Your task to perform on an android device: clear all cookies in the chrome app Image 0: 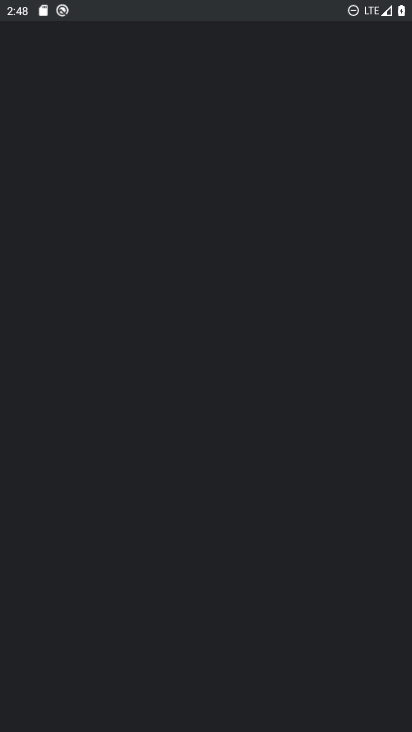
Step 0: drag from (216, 553) to (387, 7)
Your task to perform on an android device: clear all cookies in the chrome app Image 1: 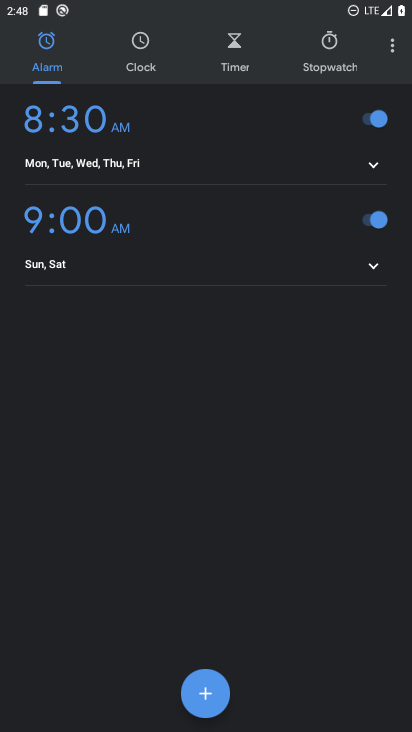
Step 1: click (260, 348)
Your task to perform on an android device: clear all cookies in the chrome app Image 2: 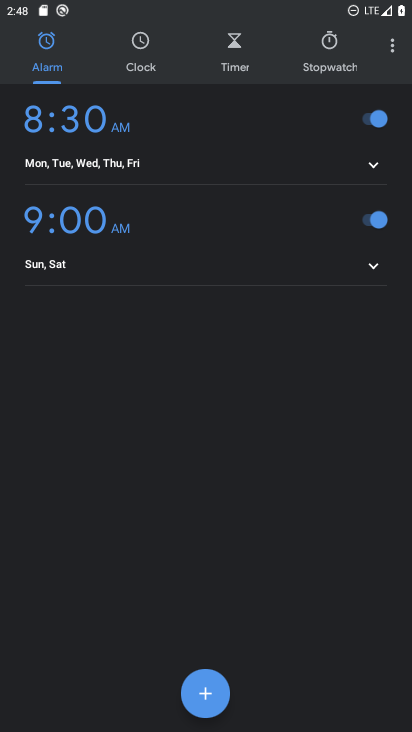
Step 2: press home button
Your task to perform on an android device: clear all cookies in the chrome app Image 3: 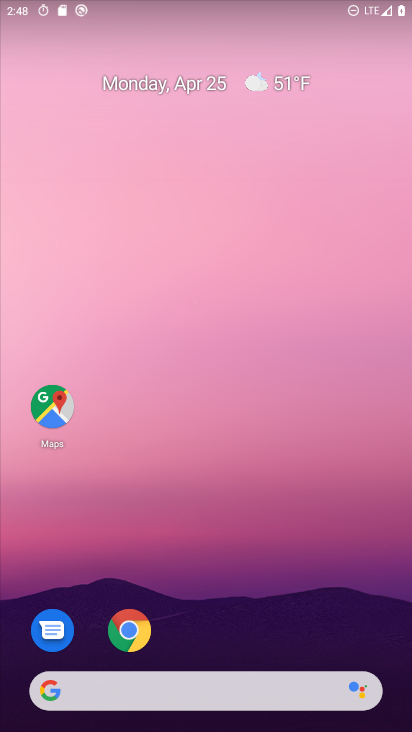
Step 3: drag from (218, 648) to (232, 258)
Your task to perform on an android device: clear all cookies in the chrome app Image 4: 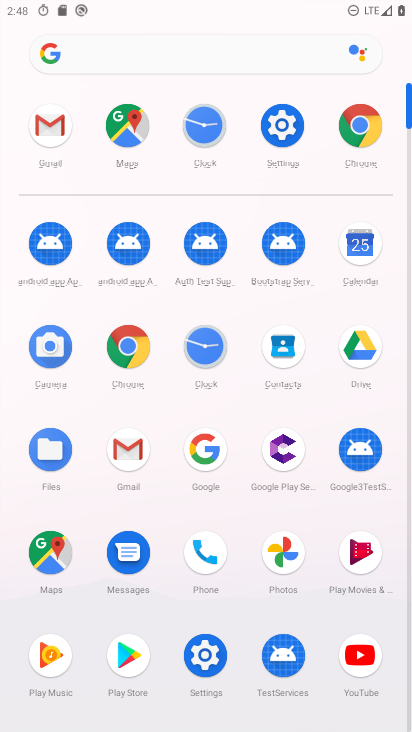
Step 4: click (124, 344)
Your task to perform on an android device: clear all cookies in the chrome app Image 5: 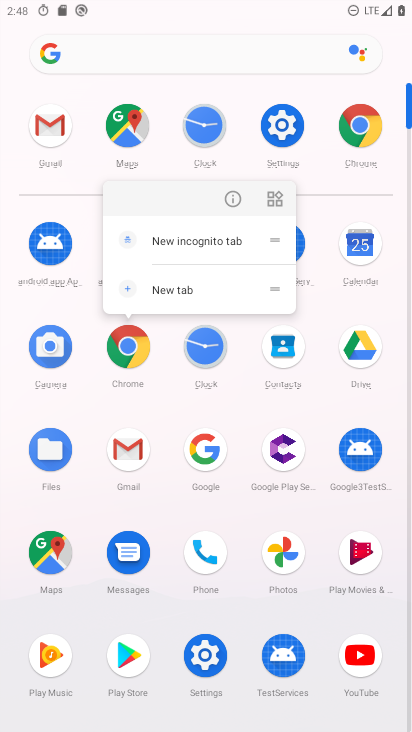
Step 5: click (228, 195)
Your task to perform on an android device: clear all cookies in the chrome app Image 6: 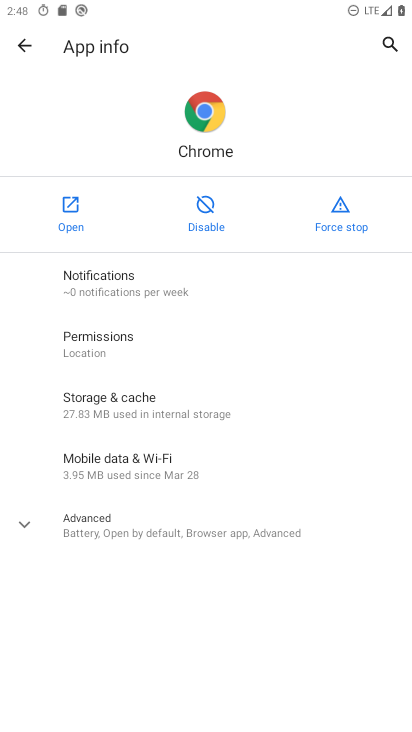
Step 6: click (62, 204)
Your task to perform on an android device: clear all cookies in the chrome app Image 7: 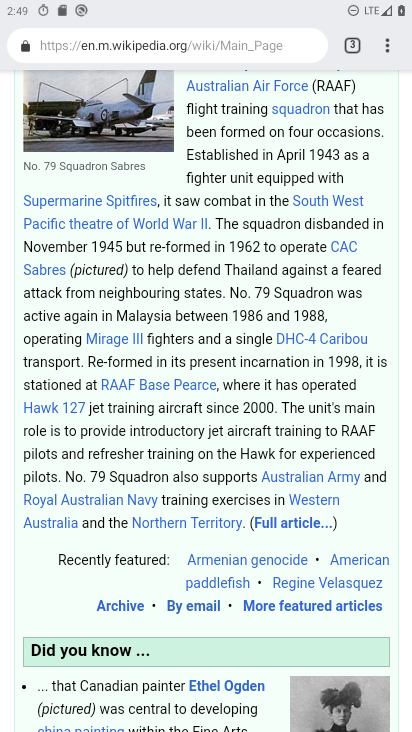
Step 7: drag from (208, 666) to (258, 218)
Your task to perform on an android device: clear all cookies in the chrome app Image 8: 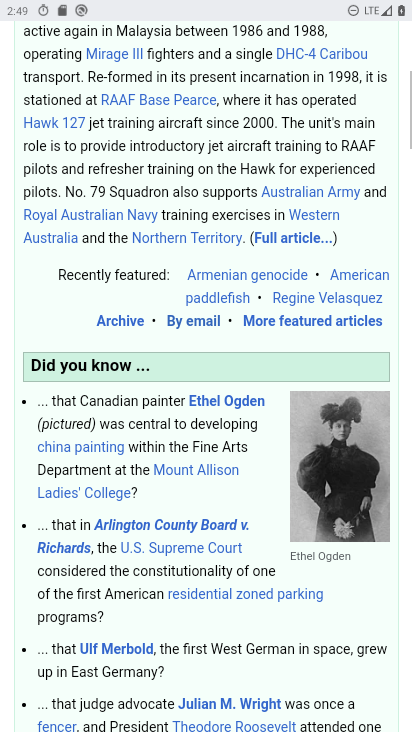
Step 8: drag from (261, 202) to (277, 707)
Your task to perform on an android device: clear all cookies in the chrome app Image 9: 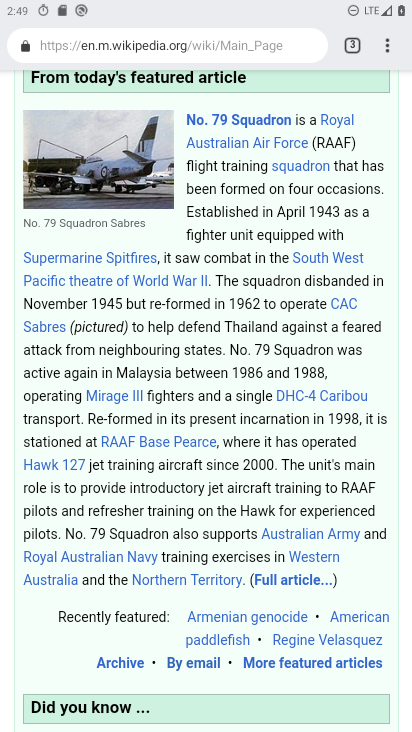
Step 9: drag from (196, 135) to (232, 689)
Your task to perform on an android device: clear all cookies in the chrome app Image 10: 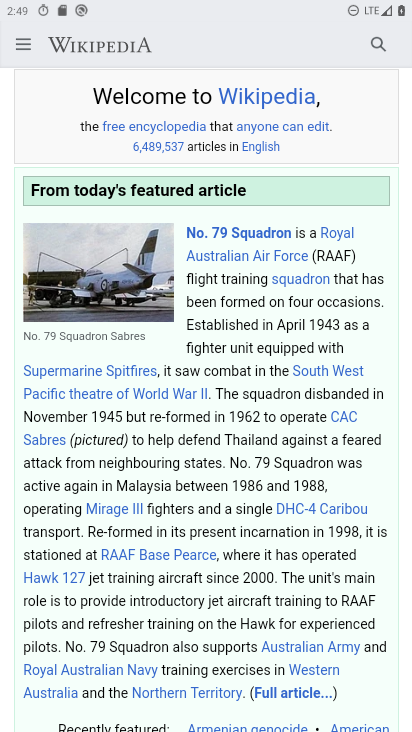
Step 10: drag from (389, 34) to (279, 10)
Your task to perform on an android device: clear all cookies in the chrome app Image 11: 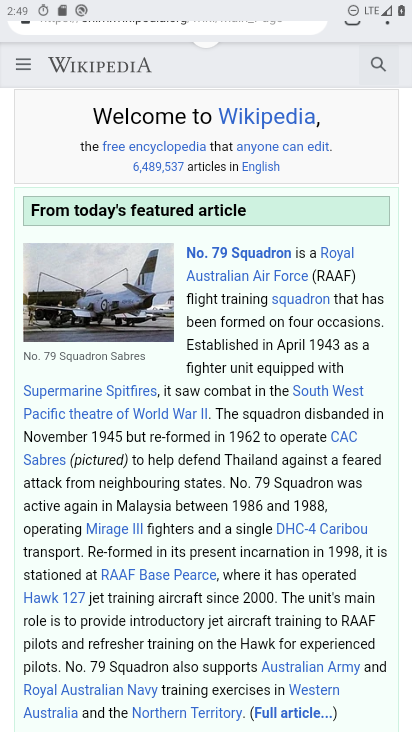
Step 11: drag from (228, 188) to (274, 535)
Your task to perform on an android device: clear all cookies in the chrome app Image 12: 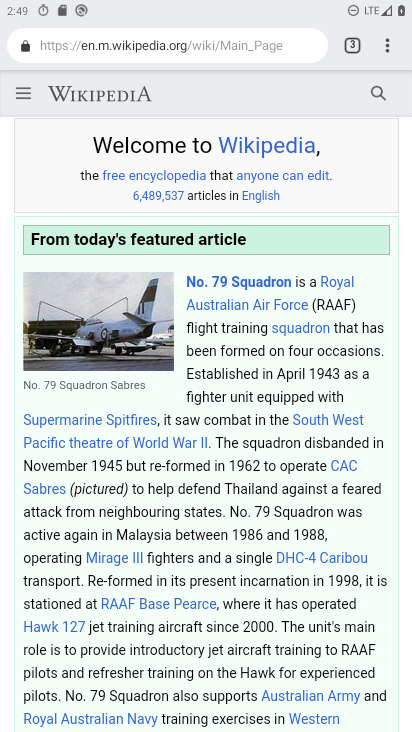
Step 12: drag from (390, 43) to (256, 311)
Your task to perform on an android device: clear all cookies in the chrome app Image 13: 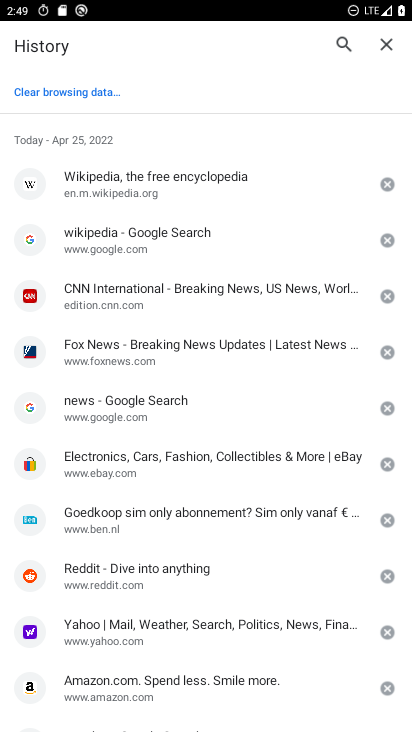
Step 13: click (44, 84)
Your task to perform on an android device: clear all cookies in the chrome app Image 14: 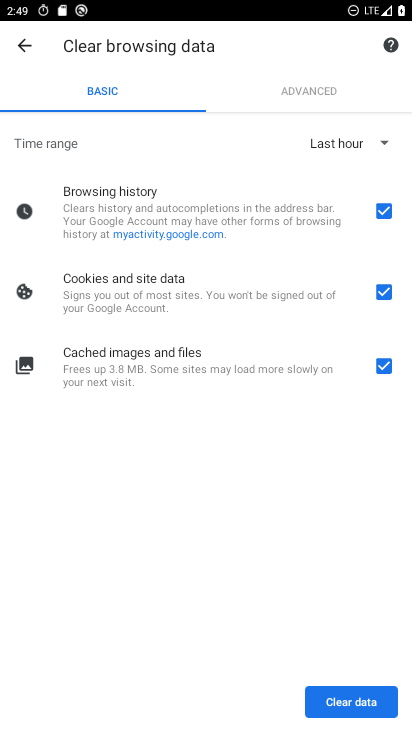
Step 14: drag from (242, 590) to (259, 389)
Your task to perform on an android device: clear all cookies in the chrome app Image 15: 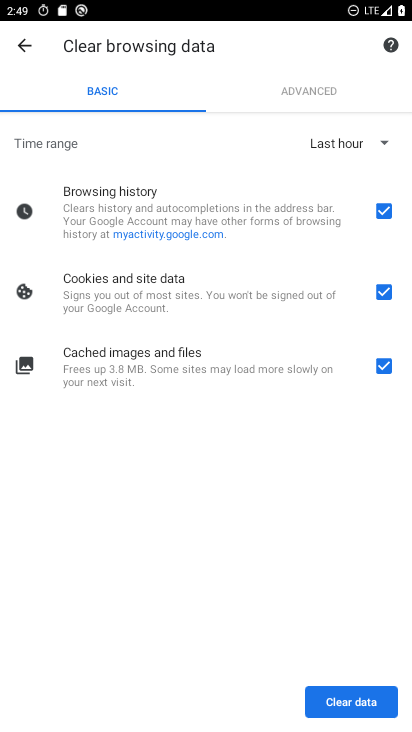
Step 15: drag from (220, 605) to (240, 364)
Your task to perform on an android device: clear all cookies in the chrome app Image 16: 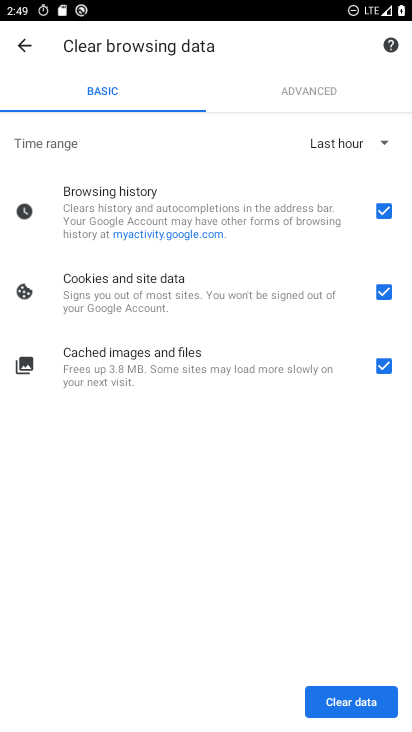
Step 16: click (390, 214)
Your task to perform on an android device: clear all cookies in the chrome app Image 17: 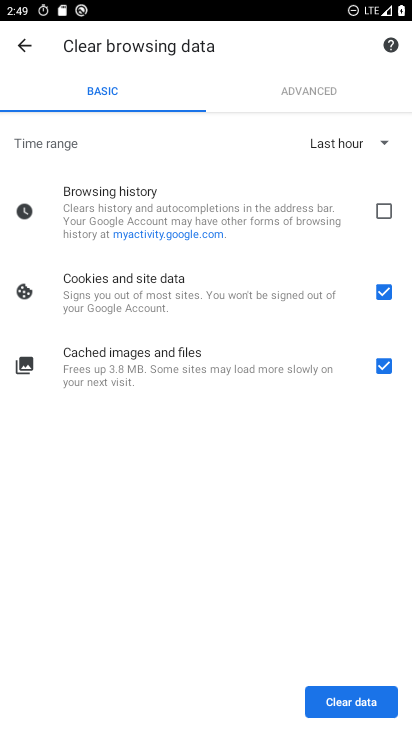
Step 17: click (380, 366)
Your task to perform on an android device: clear all cookies in the chrome app Image 18: 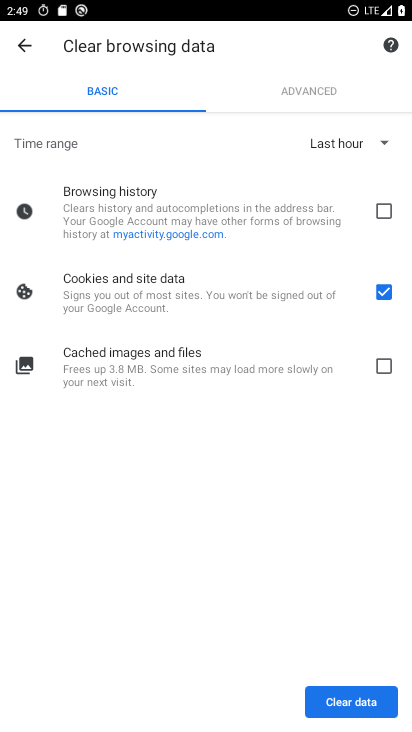
Step 18: click (367, 691)
Your task to perform on an android device: clear all cookies in the chrome app Image 19: 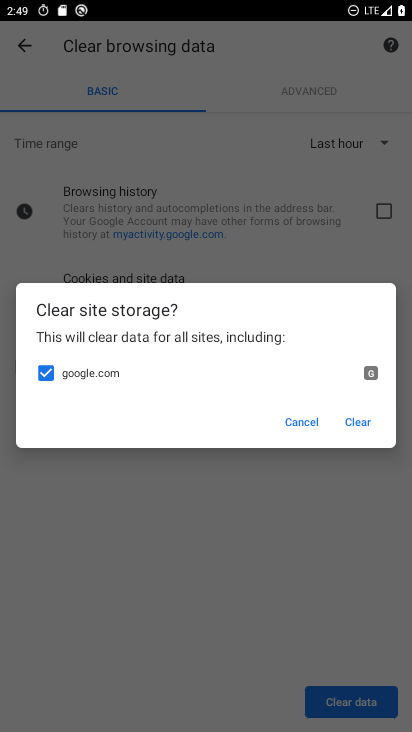
Step 19: click (346, 430)
Your task to perform on an android device: clear all cookies in the chrome app Image 20: 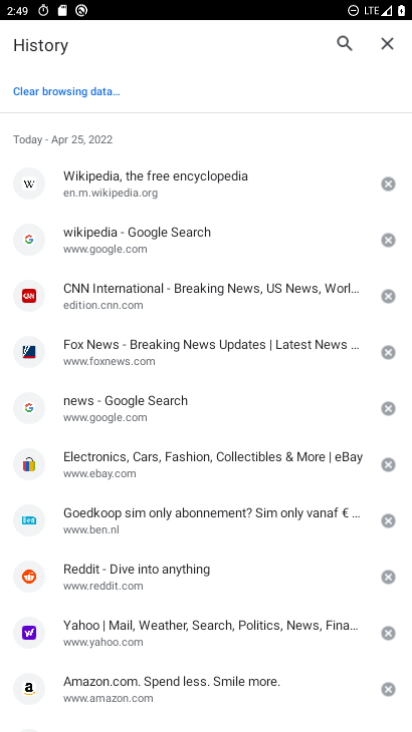
Step 20: task complete